Your task to perform on an android device: see tabs open on other devices in the chrome app Image 0: 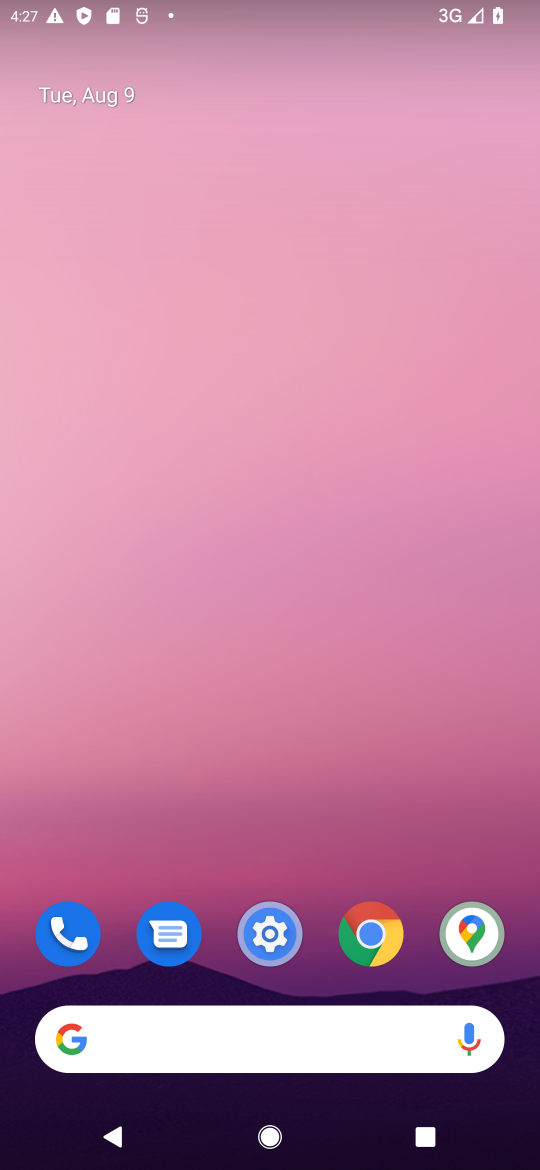
Step 0: click (363, 924)
Your task to perform on an android device: see tabs open on other devices in the chrome app Image 1: 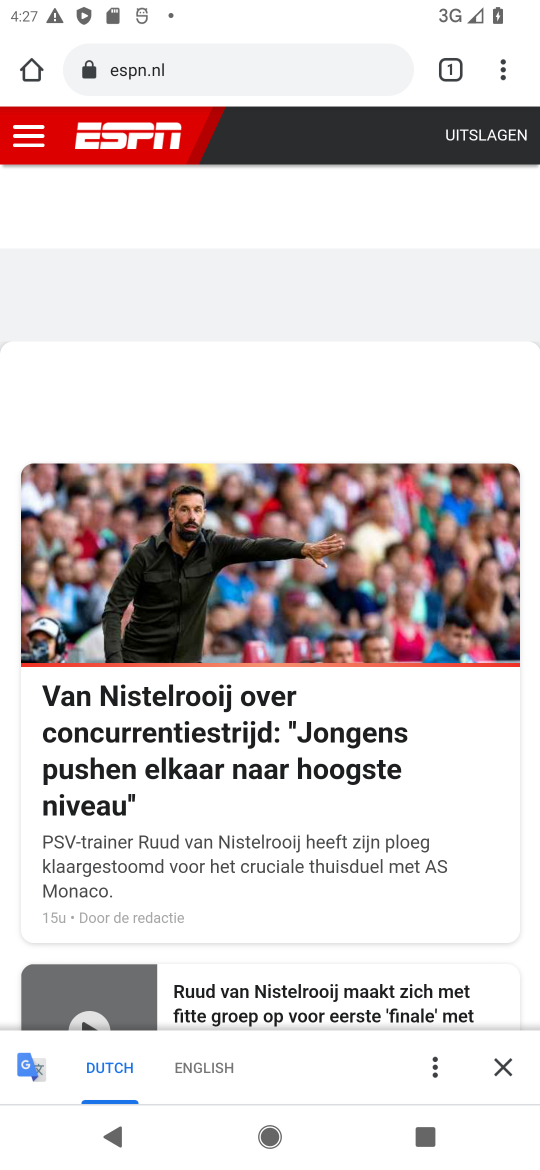
Step 1: click (511, 69)
Your task to perform on an android device: see tabs open on other devices in the chrome app Image 2: 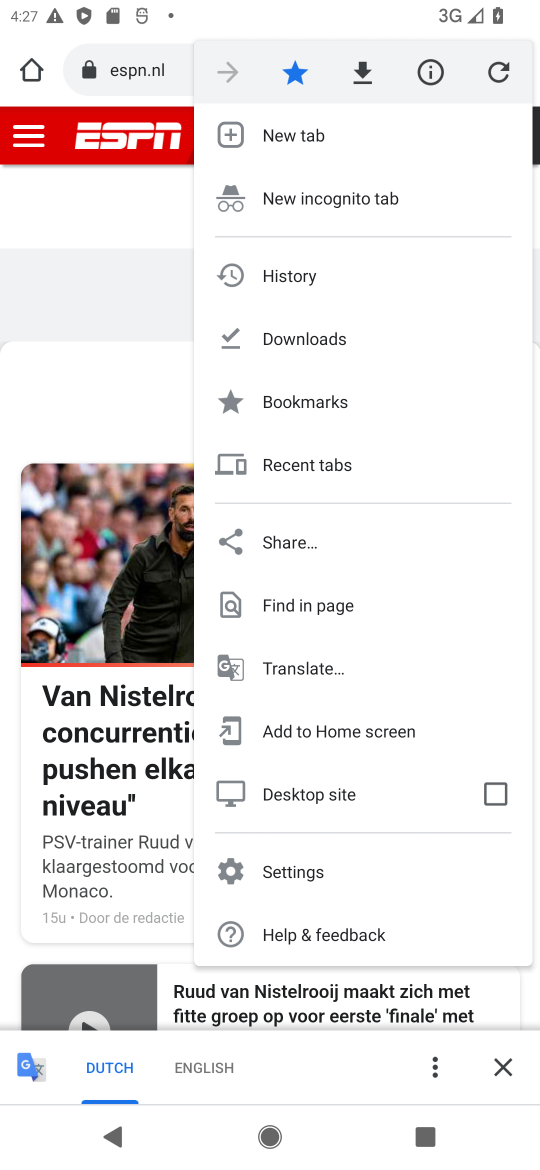
Step 2: click (349, 858)
Your task to perform on an android device: see tabs open on other devices in the chrome app Image 3: 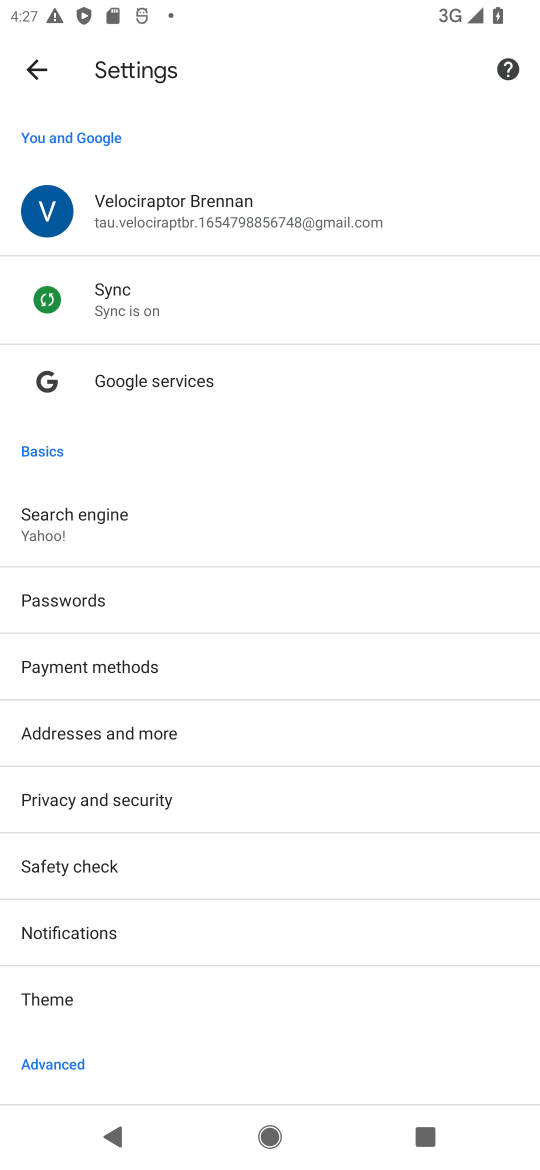
Step 3: task complete